Your task to perform on an android device: When is my next appointment? Image 0: 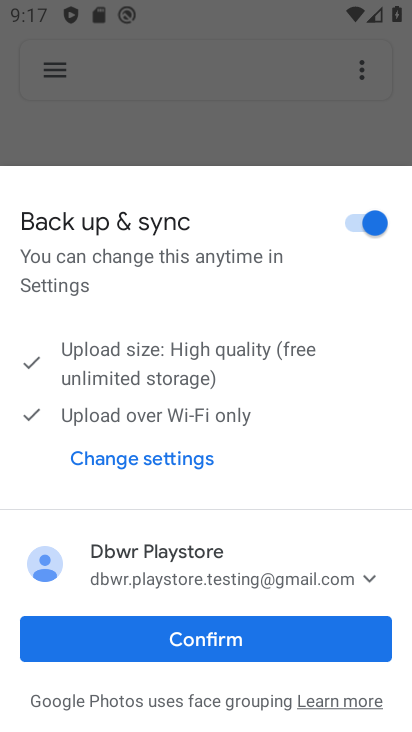
Step 0: press home button
Your task to perform on an android device: When is my next appointment? Image 1: 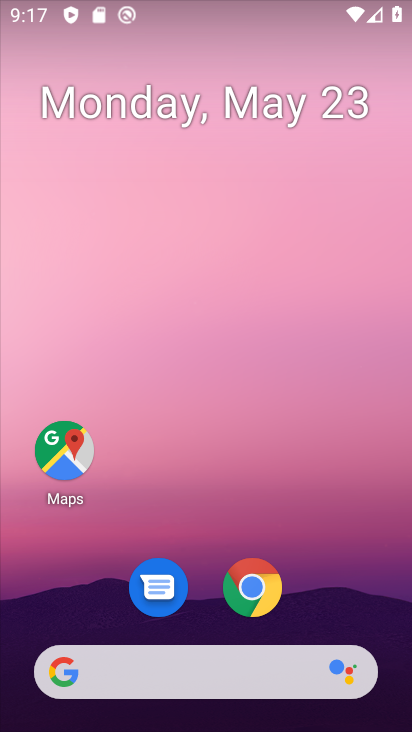
Step 1: drag from (358, 591) to (322, 61)
Your task to perform on an android device: When is my next appointment? Image 2: 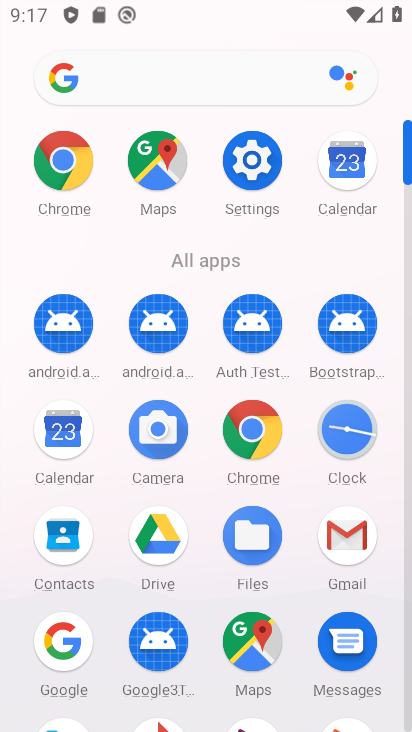
Step 2: click (72, 439)
Your task to perform on an android device: When is my next appointment? Image 3: 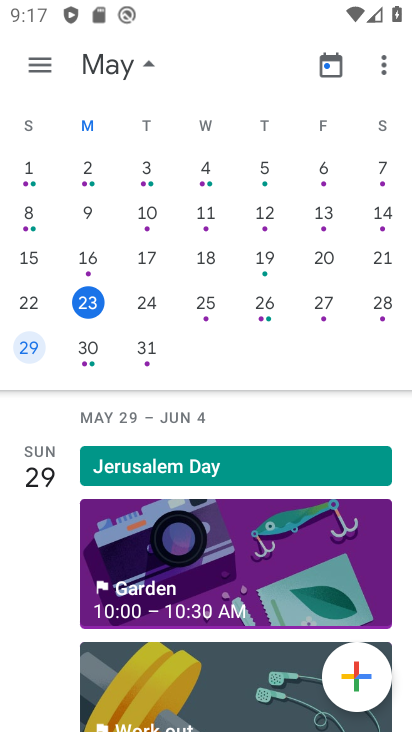
Step 3: click (216, 315)
Your task to perform on an android device: When is my next appointment? Image 4: 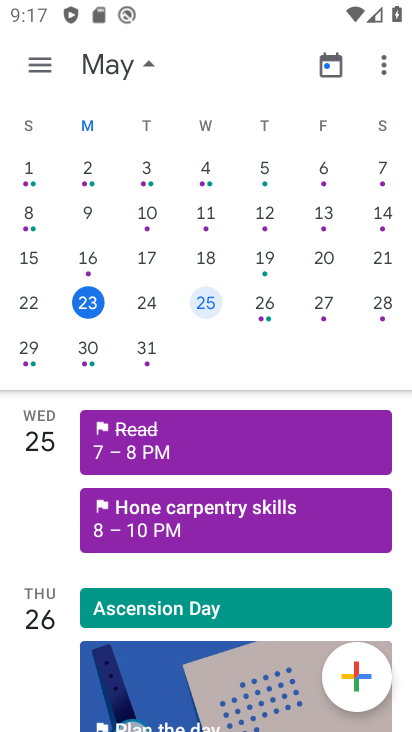
Step 4: task complete